Your task to perform on an android device: Open calendar and show me the first week of next month Image 0: 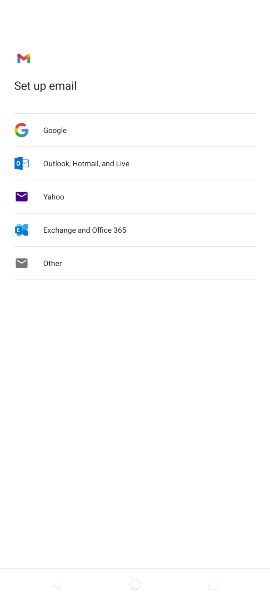
Step 0: press home button
Your task to perform on an android device: Open calendar and show me the first week of next month Image 1: 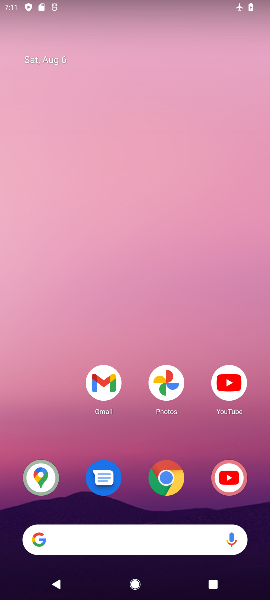
Step 1: drag from (155, 315) to (186, 63)
Your task to perform on an android device: Open calendar and show me the first week of next month Image 2: 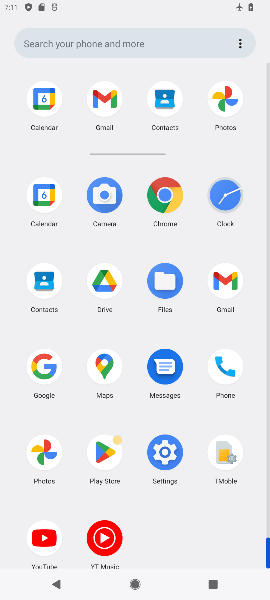
Step 2: click (45, 190)
Your task to perform on an android device: Open calendar and show me the first week of next month Image 3: 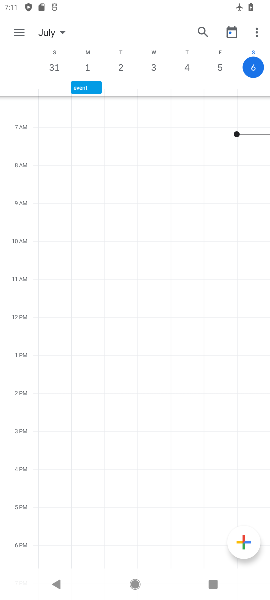
Step 3: click (19, 30)
Your task to perform on an android device: Open calendar and show me the first week of next month Image 4: 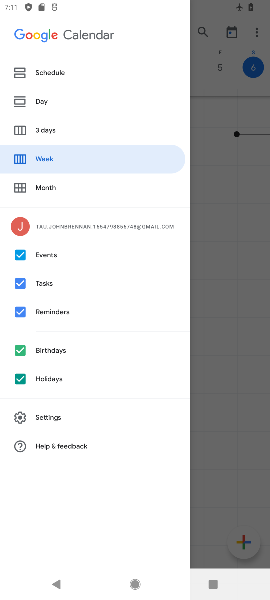
Step 4: click (51, 184)
Your task to perform on an android device: Open calendar and show me the first week of next month Image 5: 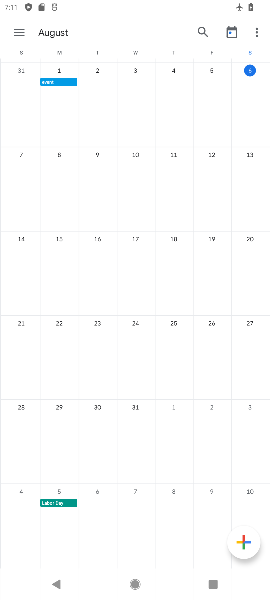
Step 5: drag from (241, 243) to (3, 96)
Your task to perform on an android device: Open calendar and show me the first week of next month Image 6: 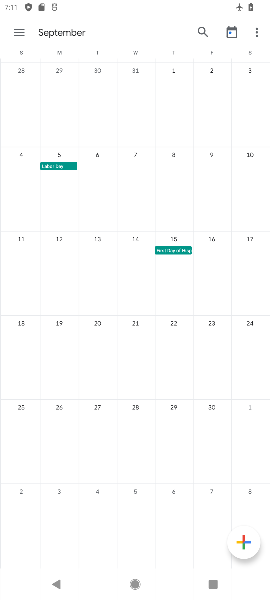
Step 6: click (20, 31)
Your task to perform on an android device: Open calendar and show me the first week of next month Image 7: 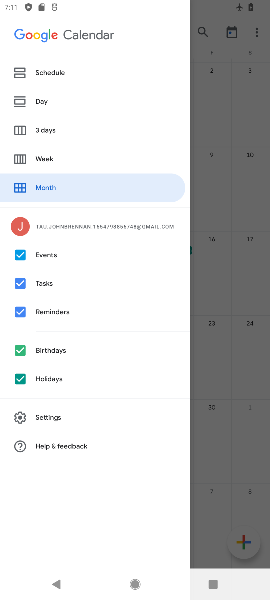
Step 7: click (48, 157)
Your task to perform on an android device: Open calendar and show me the first week of next month Image 8: 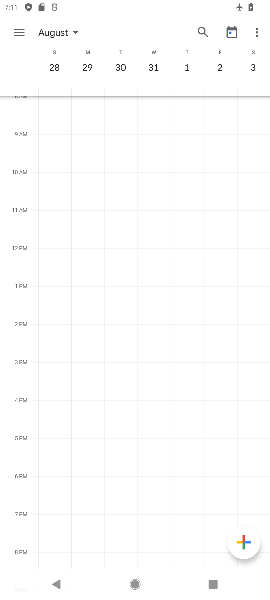
Step 8: task complete